Your task to perform on an android device: turn pop-ups on in chrome Image 0: 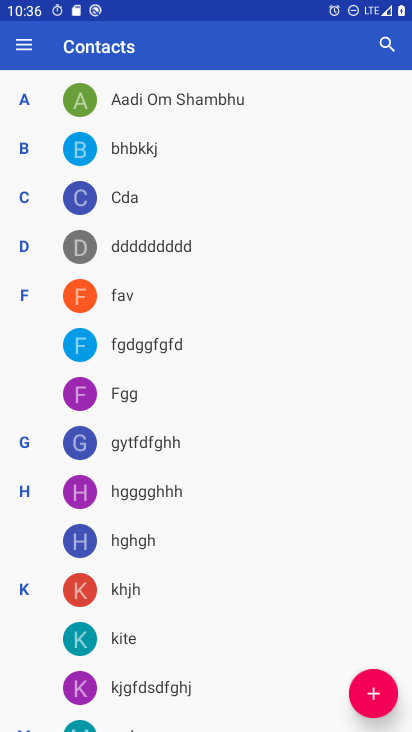
Step 0: press home button
Your task to perform on an android device: turn pop-ups on in chrome Image 1: 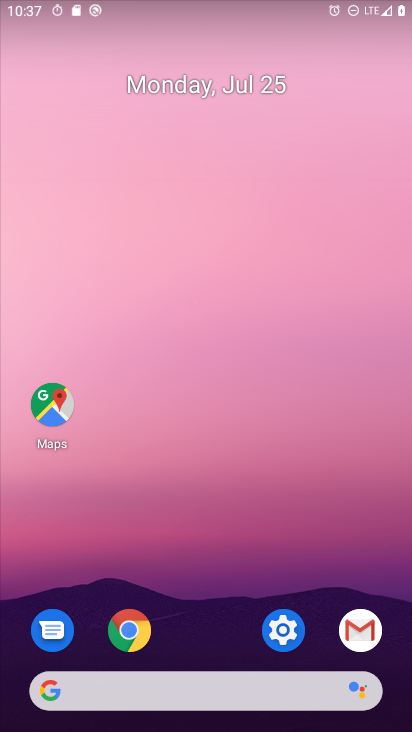
Step 1: click (137, 624)
Your task to perform on an android device: turn pop-ups on in chrome Image 2: 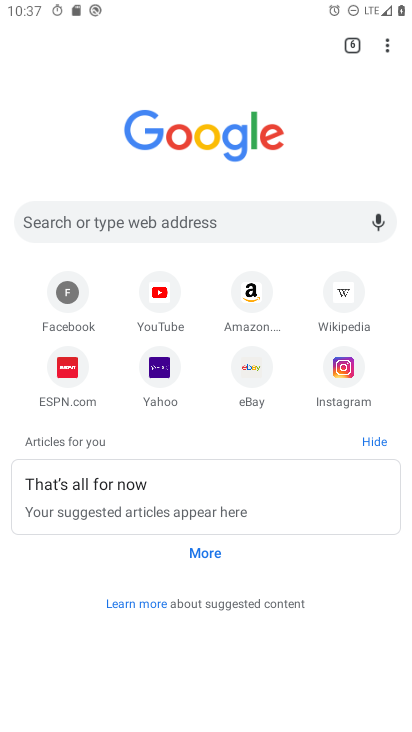
Step 2: click (382, 51)
Your task to perform on an android device: turn pop-ups on in chrome Image 3: 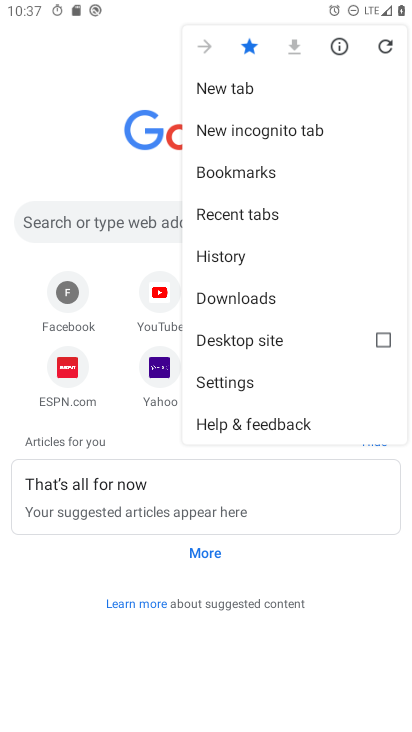
Step 3: click (233, 377)
Your task to perform on an android device: turn pop-ups on in chrome Image 4: 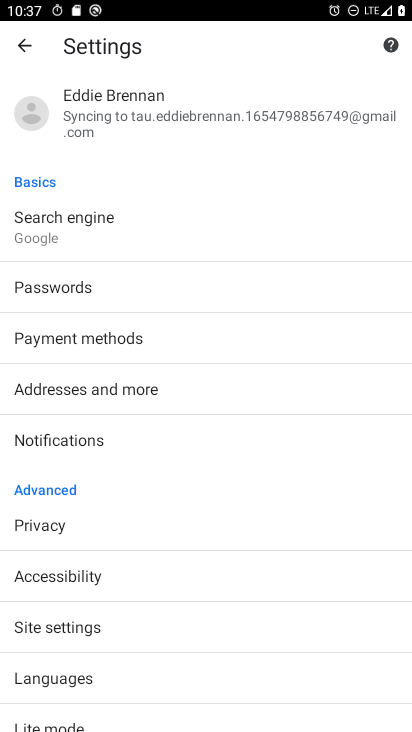
Step 4: click (91, 625)
Your task to perform on an android device: turn pop-ups on in chrome Image 5: 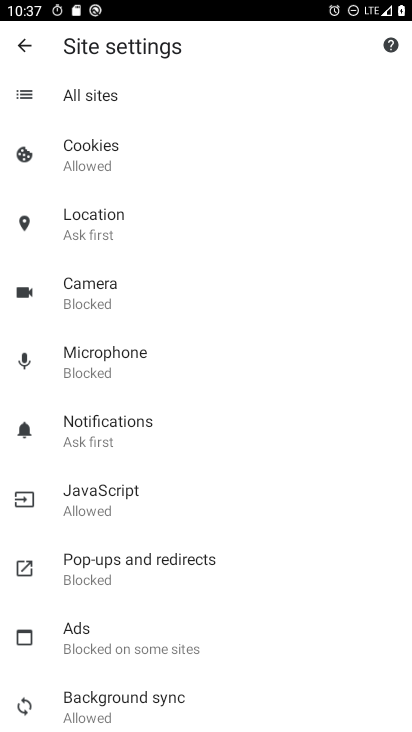
Step 5: click (146, 559)
Your task to perform on an android device: turn pop-ups on in chrome Image 6: 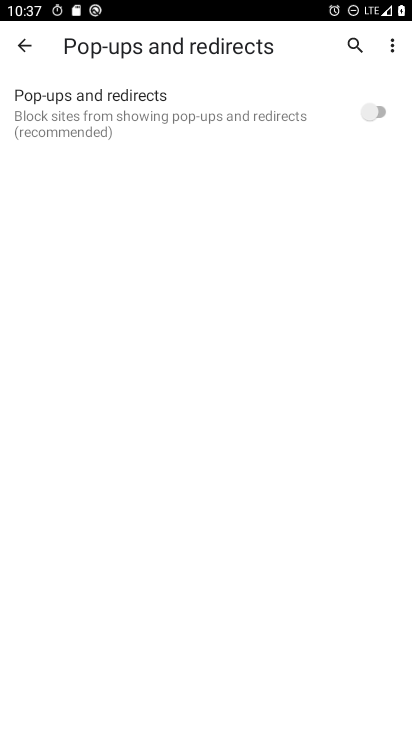
Step 6: click (350, 107)
Your task to perform on an android device: turn pop-ups on in chrome Image 7: 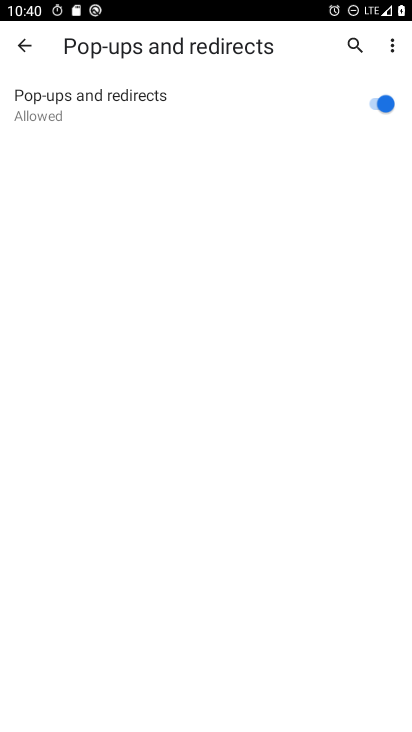
Step 7: task complete